Your task to perform on an android device: toggle improve location accuracy Image 0: 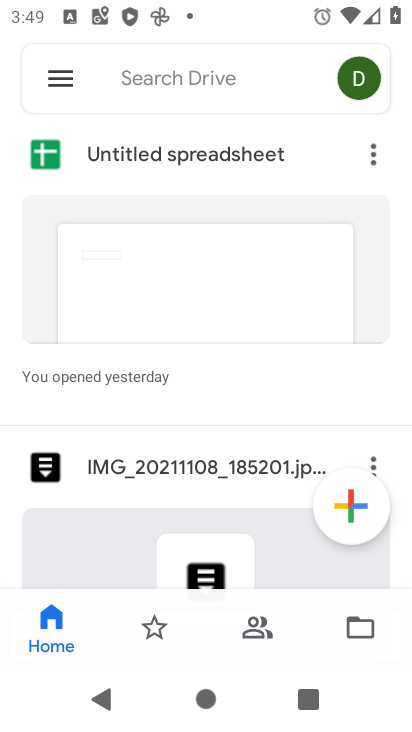
Step 0: press home button
Your task to perform on an android device: toggle improve location accuracy Image 1: 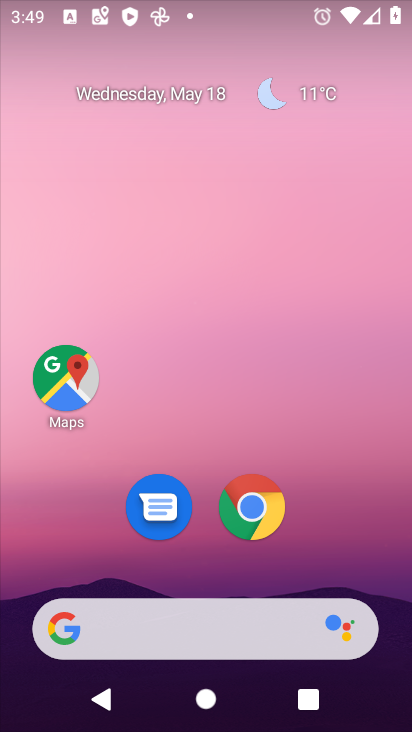
Step 1: drag from (401, 629) to (334, 161)
Your task to perform on an android device: toggle improve location accuracy Image 2: 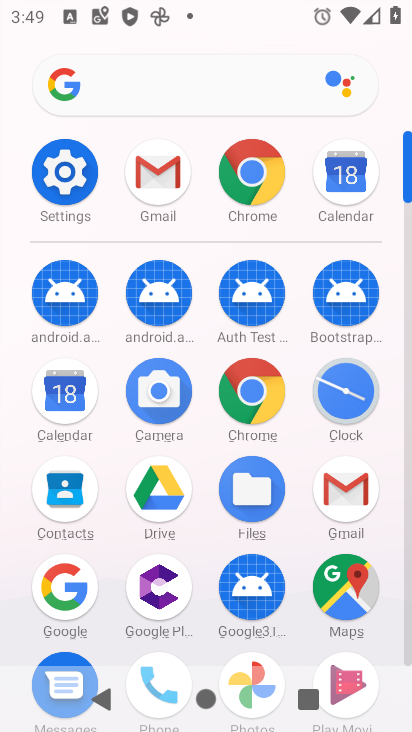
Step 2: click (407, 638)
Your task to perform on an android device: toggle improve location accuracy Image 3: 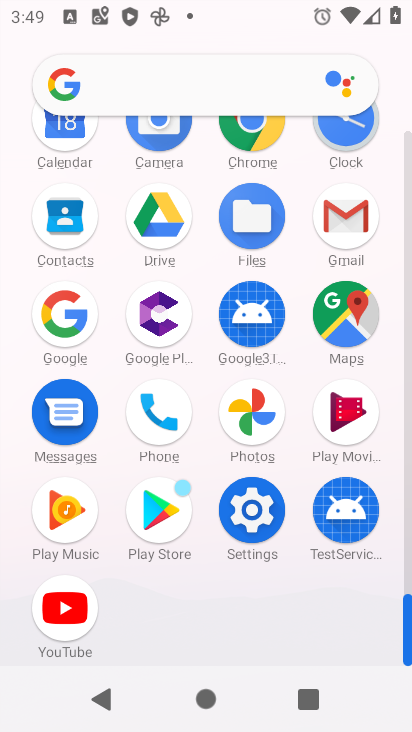
Step 3: click (247, 513)
Your task to perform on an android device: toggle improve location accuracy Image 4: 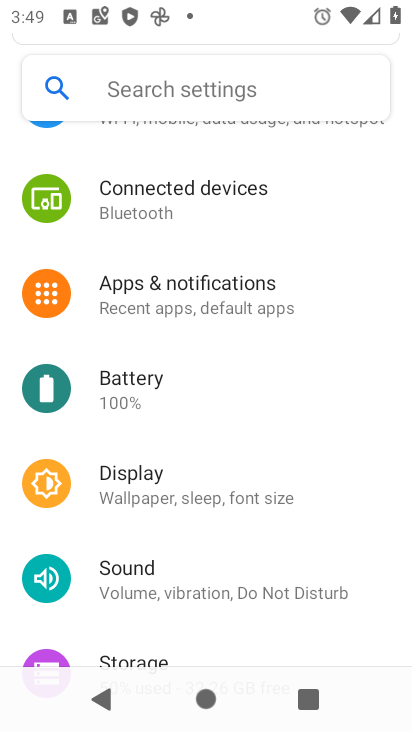
Step 4: drag from (357, 630) to (344, 243)
Your task to perform on an android device: toggle improve location accuracy Image 5: 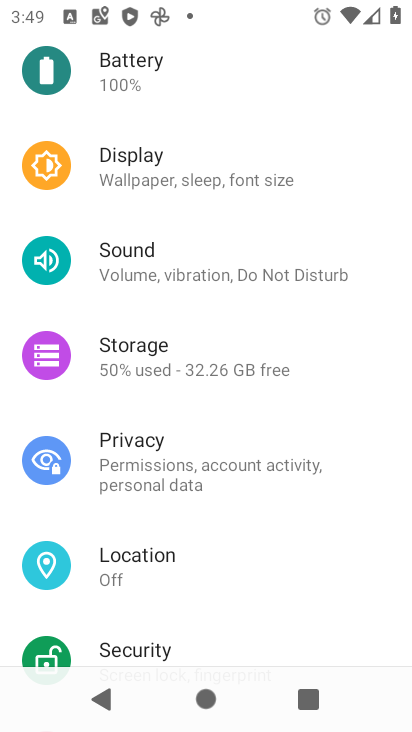
Step 5: click (119, 555)
Your task to perform on an android device: toggle improve location accuracy Image 6: 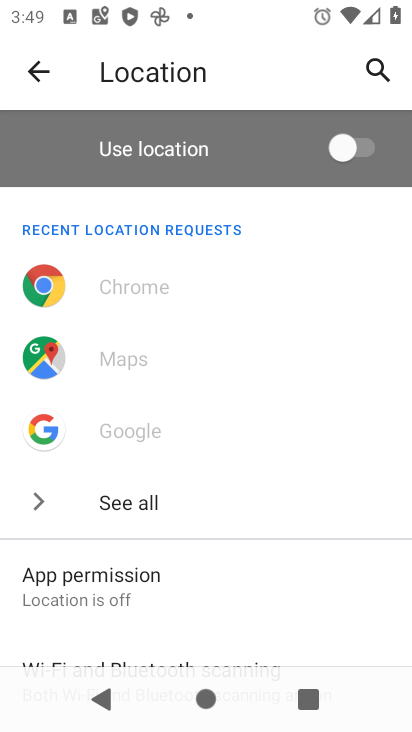
Step 6: drag from (199, 613) to (232, 259)
Your task to perform on an android device: toggle improve location accuracy Image 7: 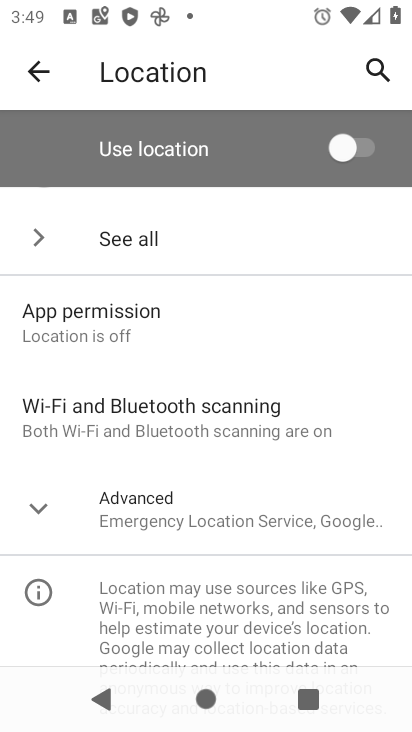
Step 7: click (30, 508)
Your task to perform on an android device: toggle improve location accuracy Image 8: 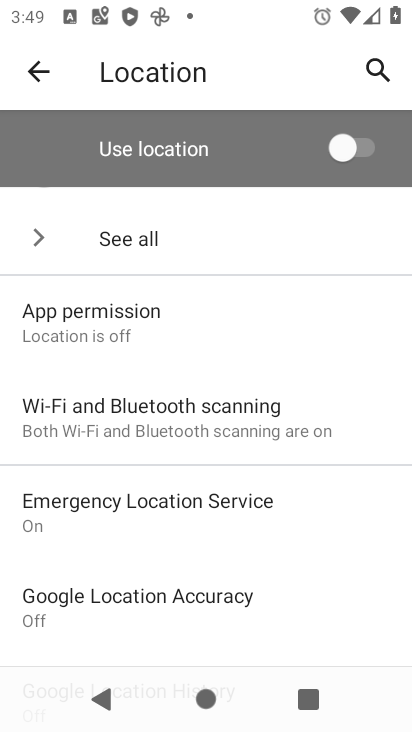
Step 8: click (132, 609)
Your task to perform on an android device: toggle improve location accuracy Image 9: 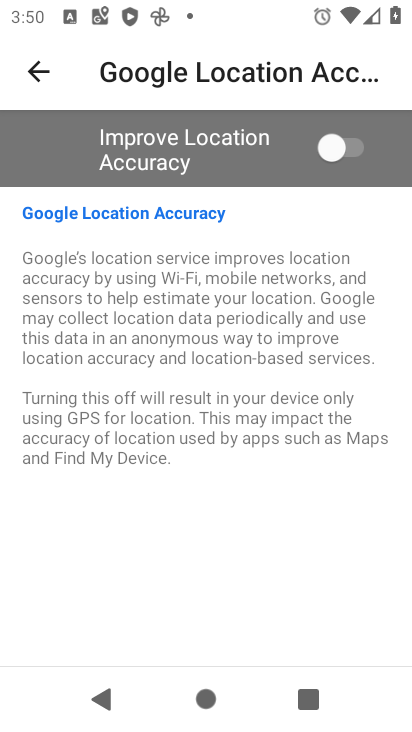
Step 9: click (354, 152)
Your task to perform on an android device: toggle improve location accuracy Image 10: 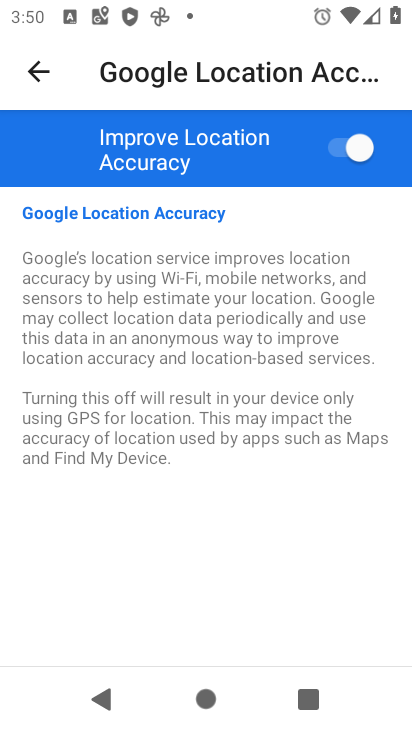
Step 10: task complete